Your task to perform on an android device: clear all cookies in the chrome app Image 0: 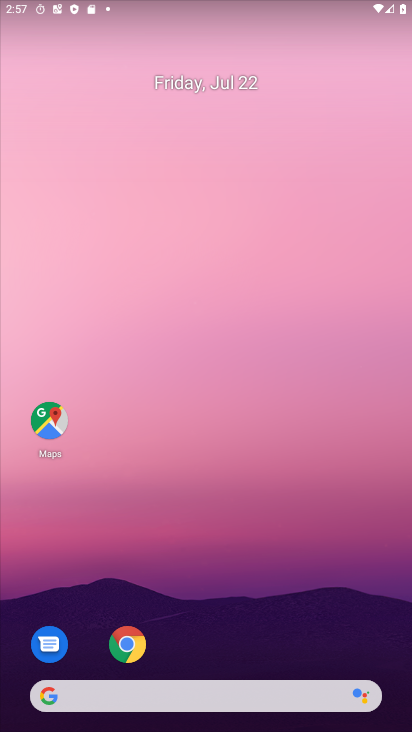
Step 0: press home button
Your task to perform on an android device: clear all cookies in the chrome app Image 1: 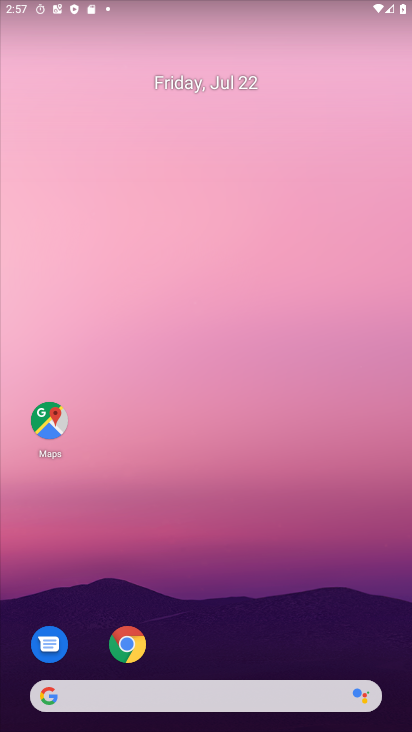
Step 1: drag from (277, 658) to (216, 83)
Your task to perform on an android device: clear all cookies in the chrome app Image 2: 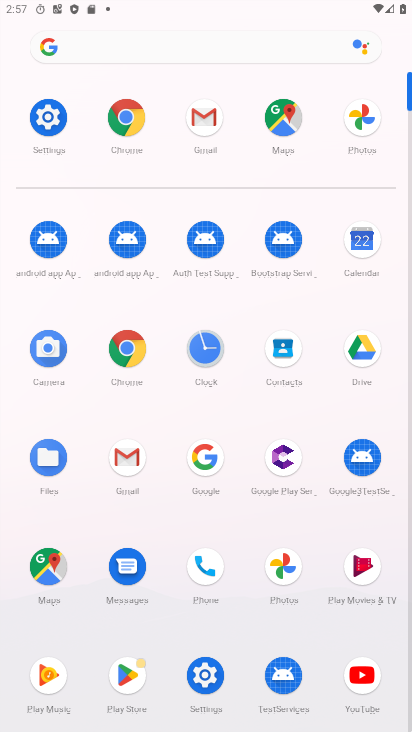
Step 2: click (125, 113)
Your task to perform on an android device: clear all cookies in the chrome app Image 3: 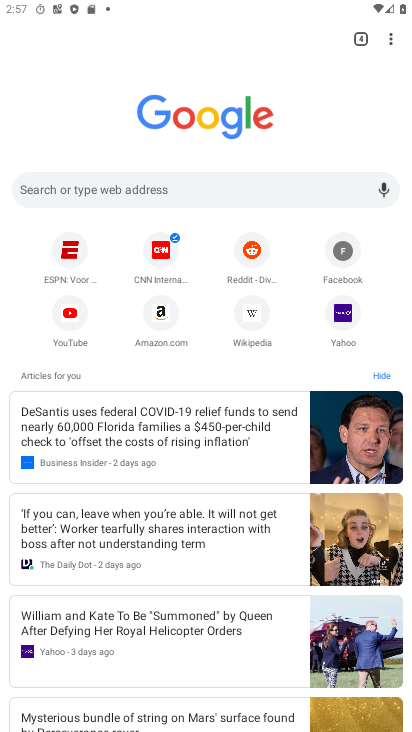
Step 3: drag from (391, 42) to (264, 376)
Your task to perform on an android device: clear all cookies in the chrome app Image 4: 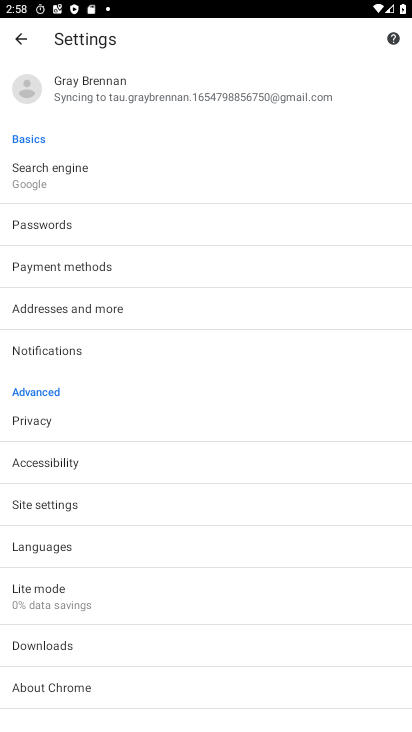
Step 4: click (41, 420)
Your task to perform on an android device: clear all cookies in the chrome app Image 5: 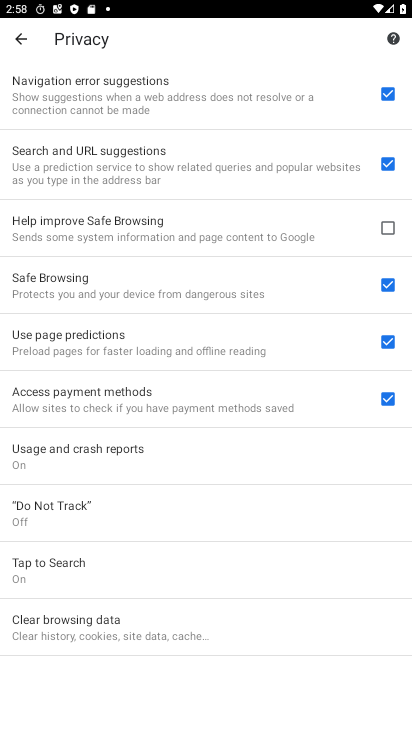
Step 5: click (79, 630)
Your task to perform on an android device: clear all cookies in the chrome app Image 6: 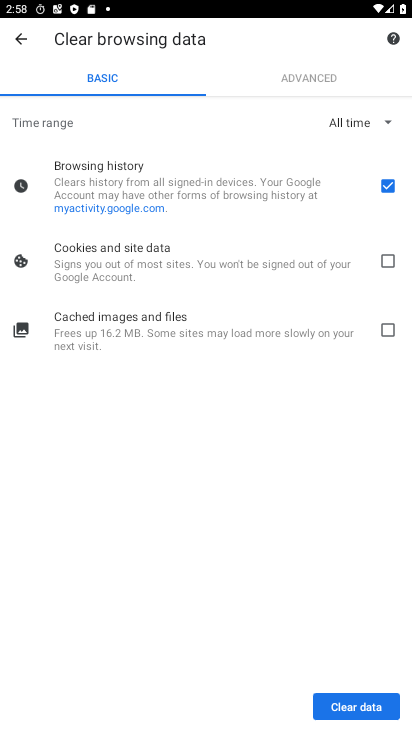
Step 6: click (394, 263)
Your task to perform on an android device: clear all cookies in the chrome app Image 7: 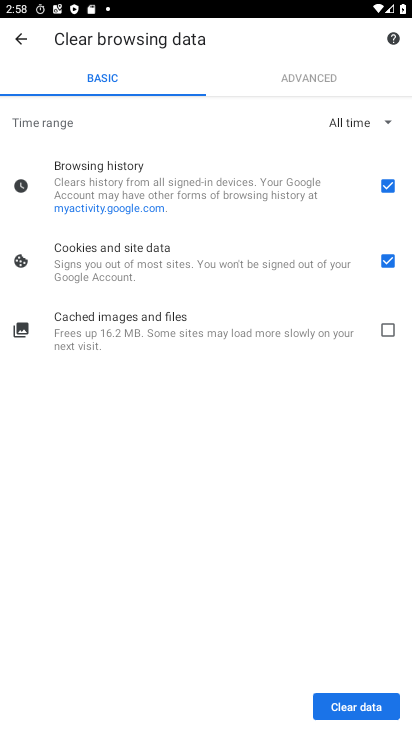
Step 7: click (384, 179)
Your task to perform on an android device: clear all cookies in the chrome app Image 8: 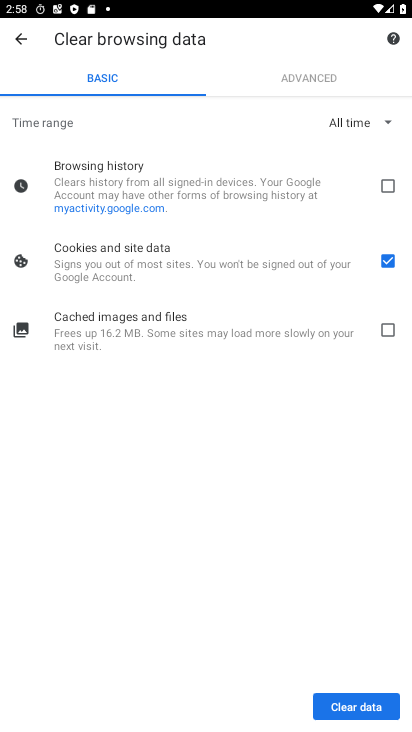
Step 8: task complete